Your task to perform on an android device: add a contact Image 0: 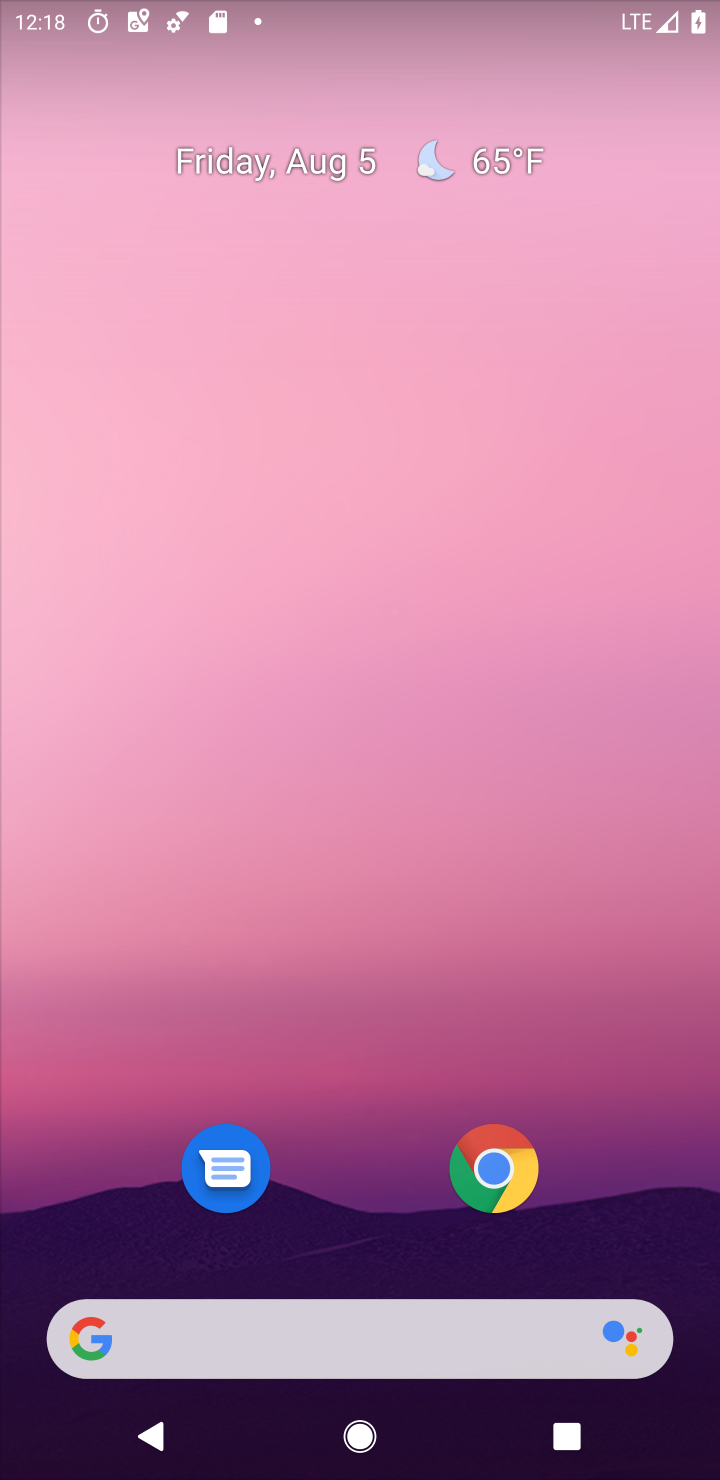
Step 0: drag from (308, 1244) to (337, 41)
Your task to perform on an android device: add a contact Image 1: 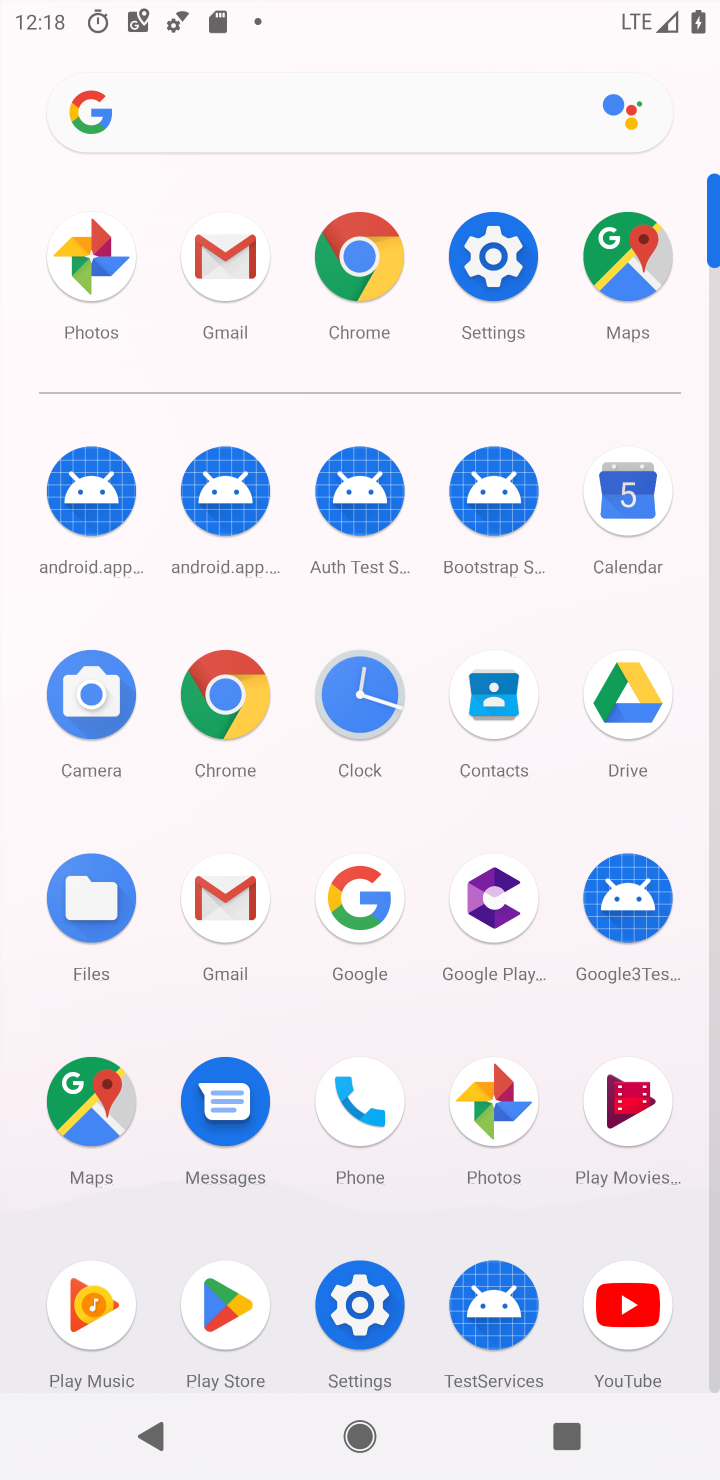
Step 1: click (648, 521)
Your task to perform on an android device: add a contact Image 2: 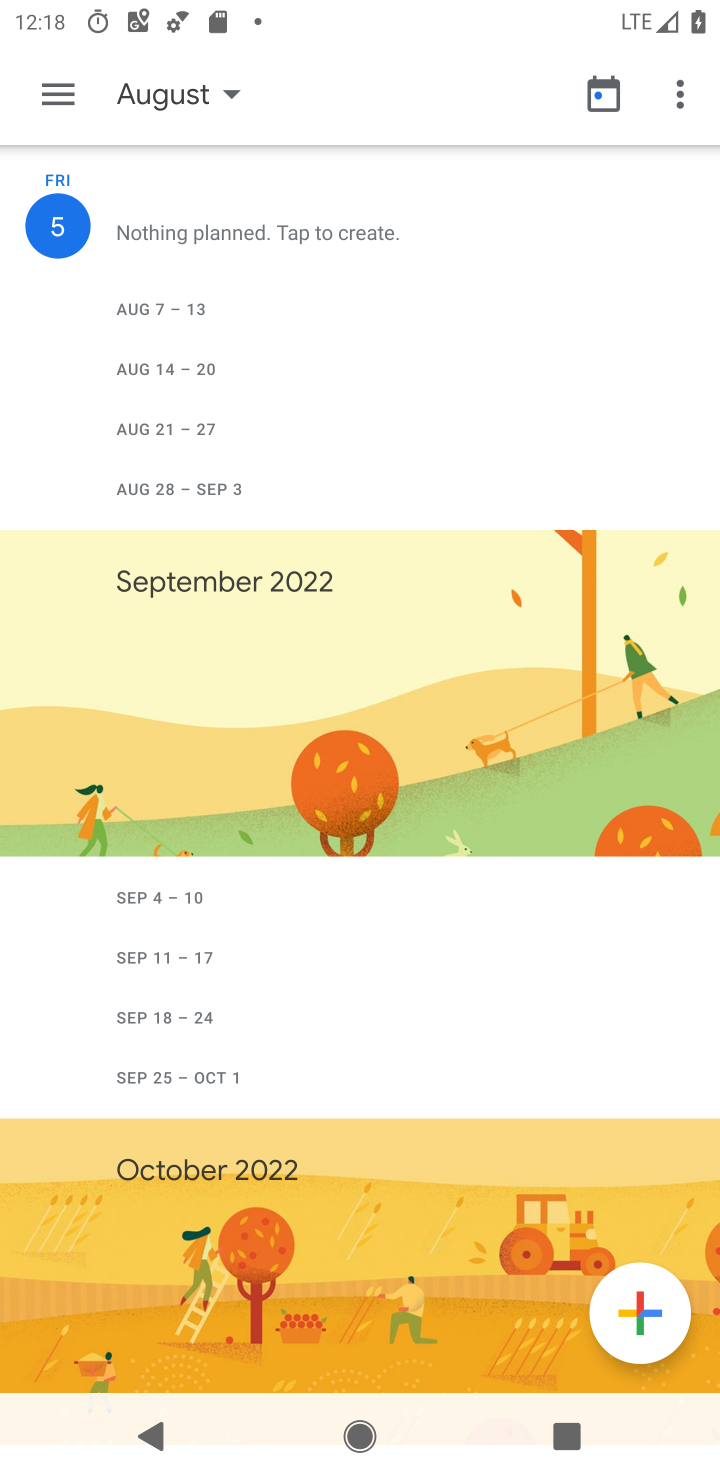
Step 2: press home button
Your task to perform on an android device: add a contact Image 3: 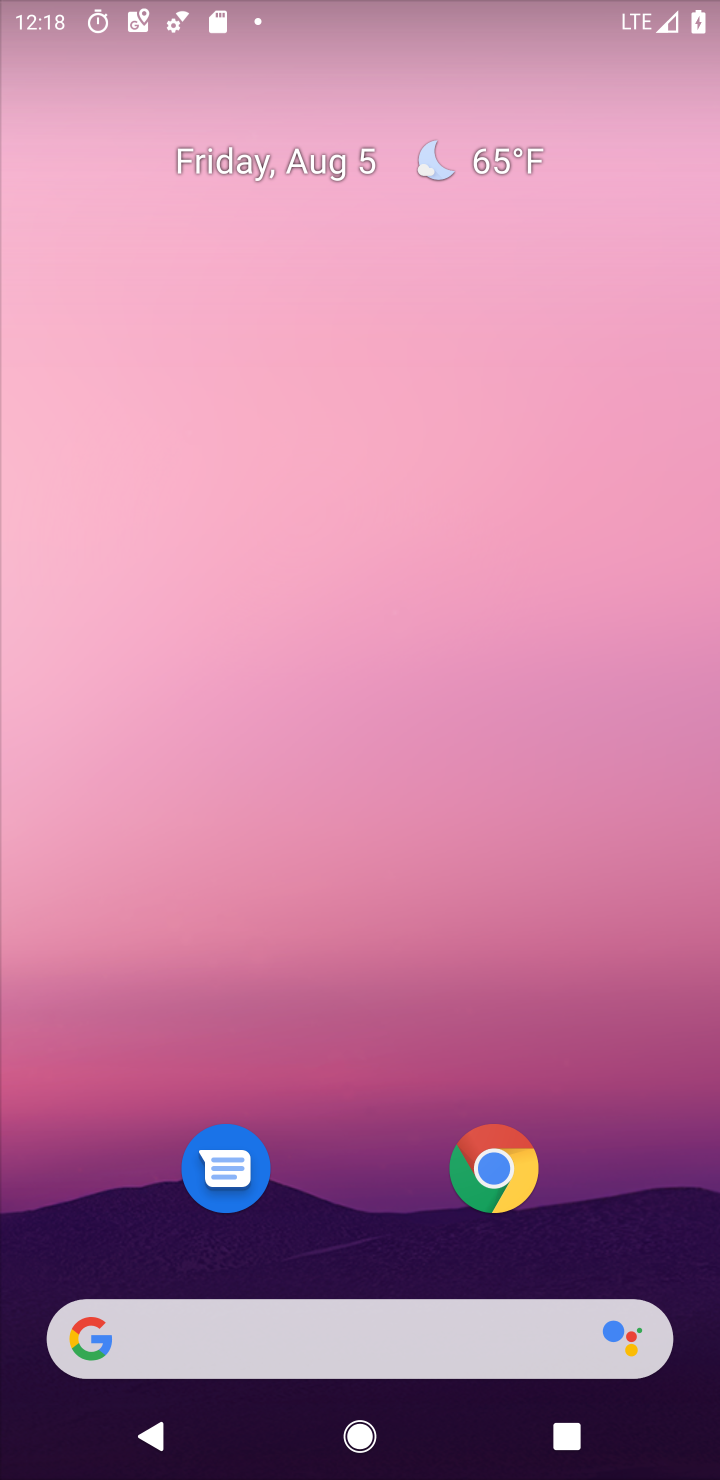
Step 3: drag from (390, 1107) to (463, 83)
Your task to perform on an android device: add a contact Image 4: 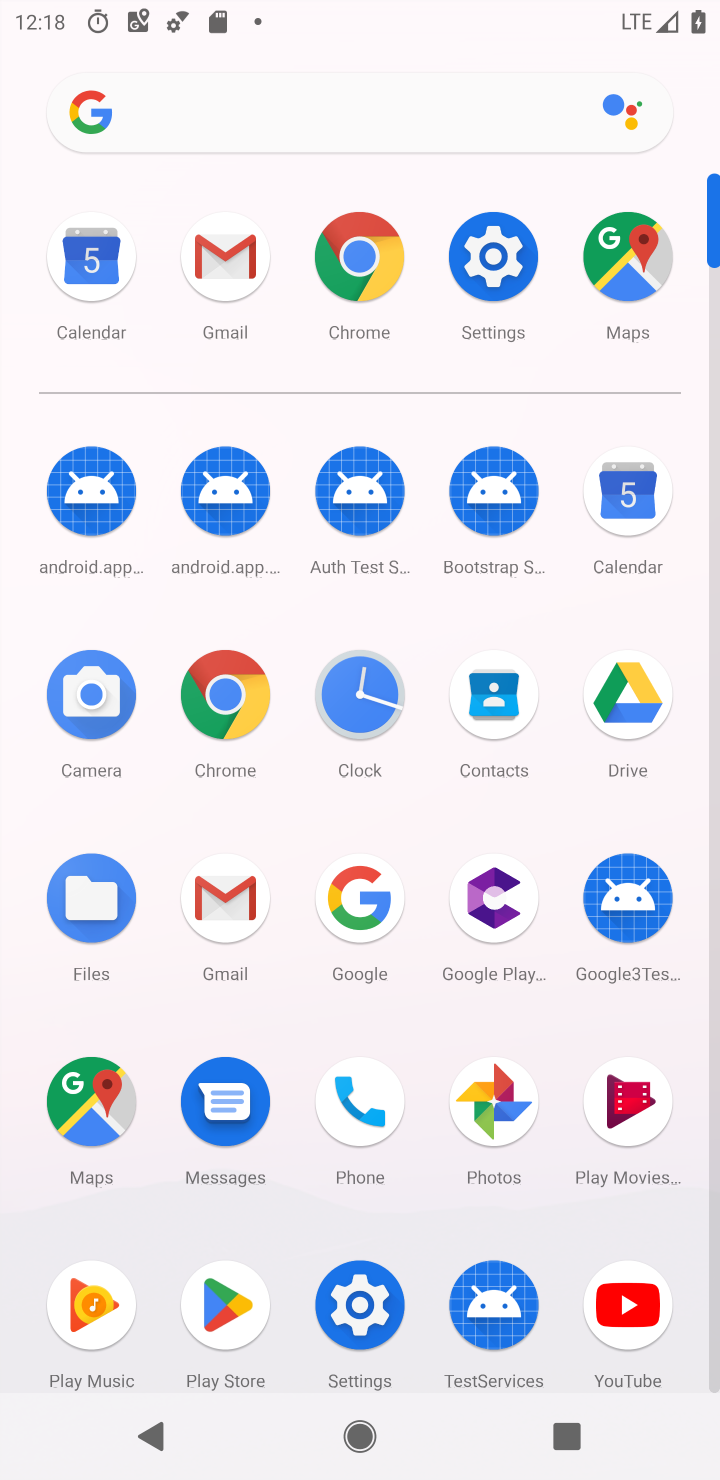
Step 4: click (496, 725)
Your task to perform on an android device: add a contact Image 5: 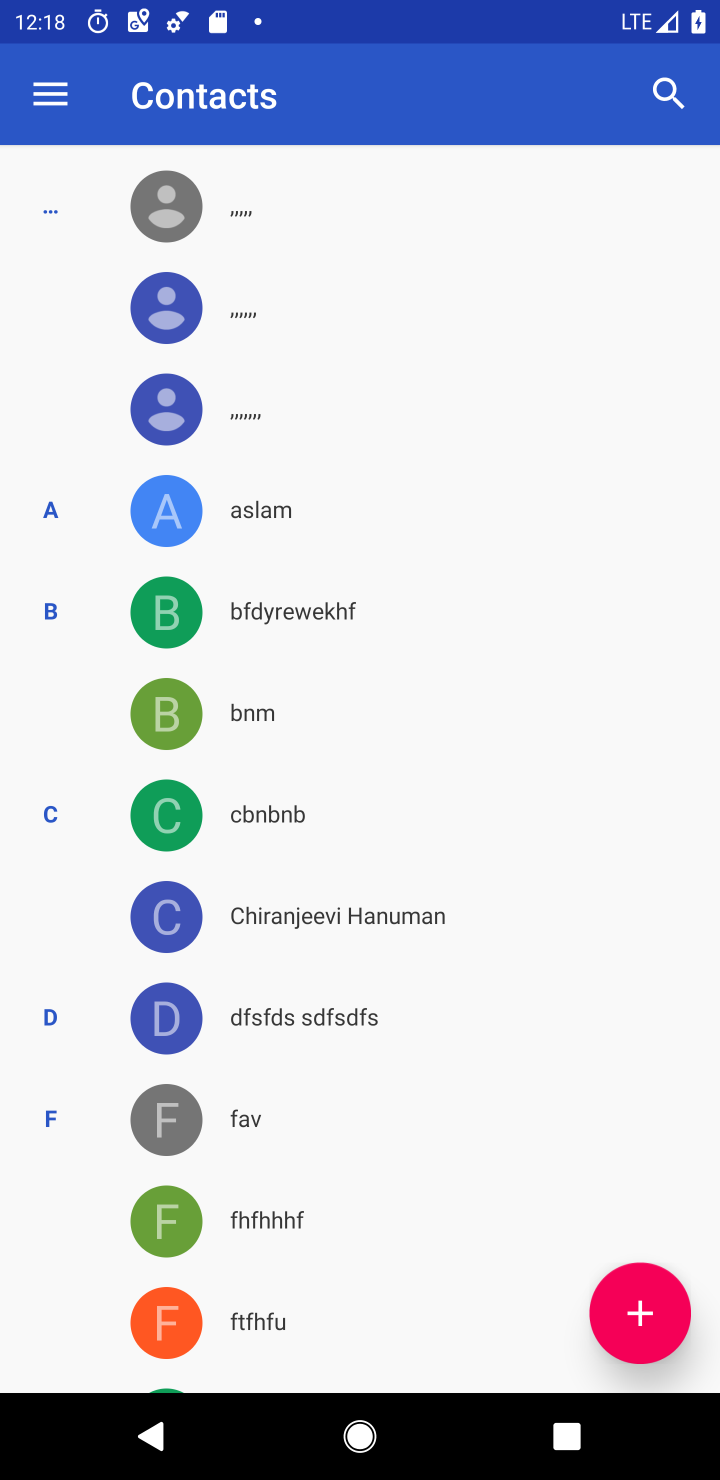
Step 5: click (668, 1323)
Your task to perform on an android device: add a contact Image 6: 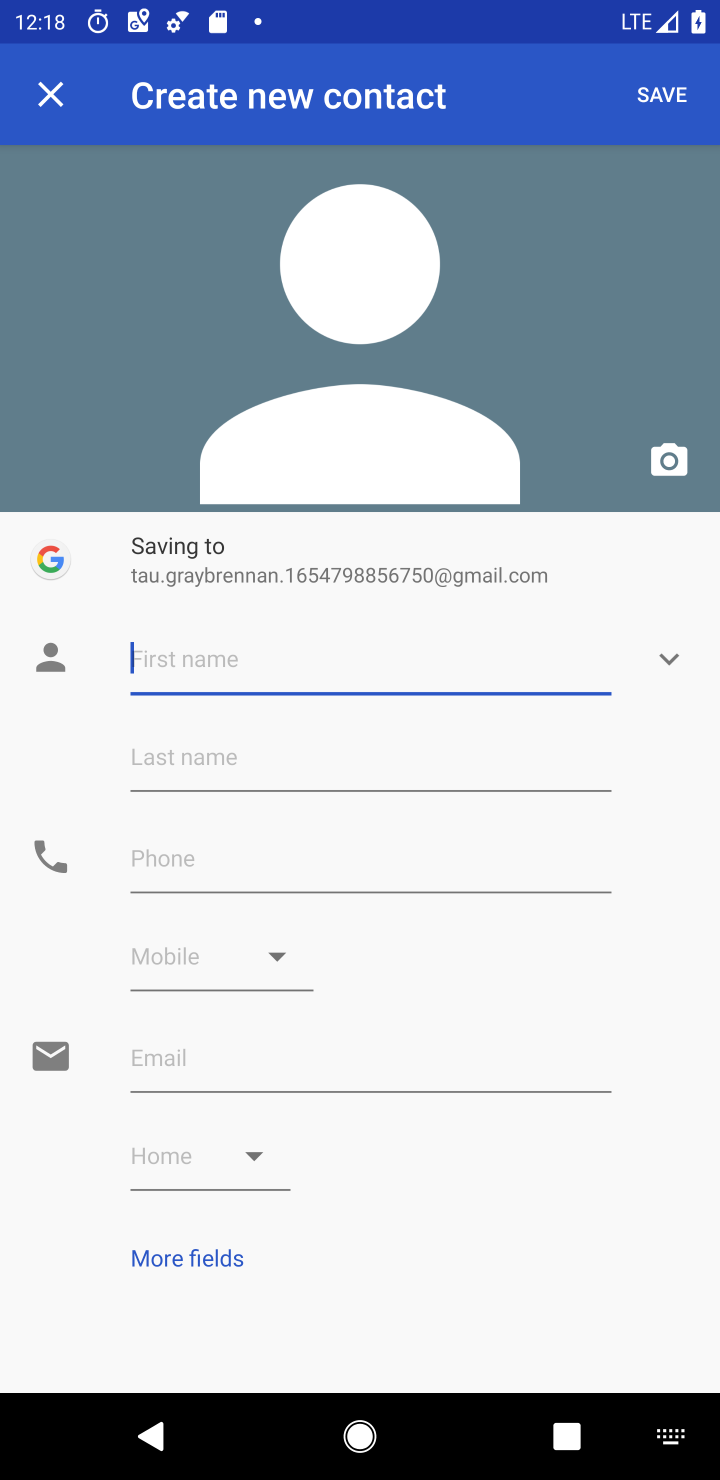
Step 6: type "counti"
Your task to perform on an android device: add a contact Image 7: 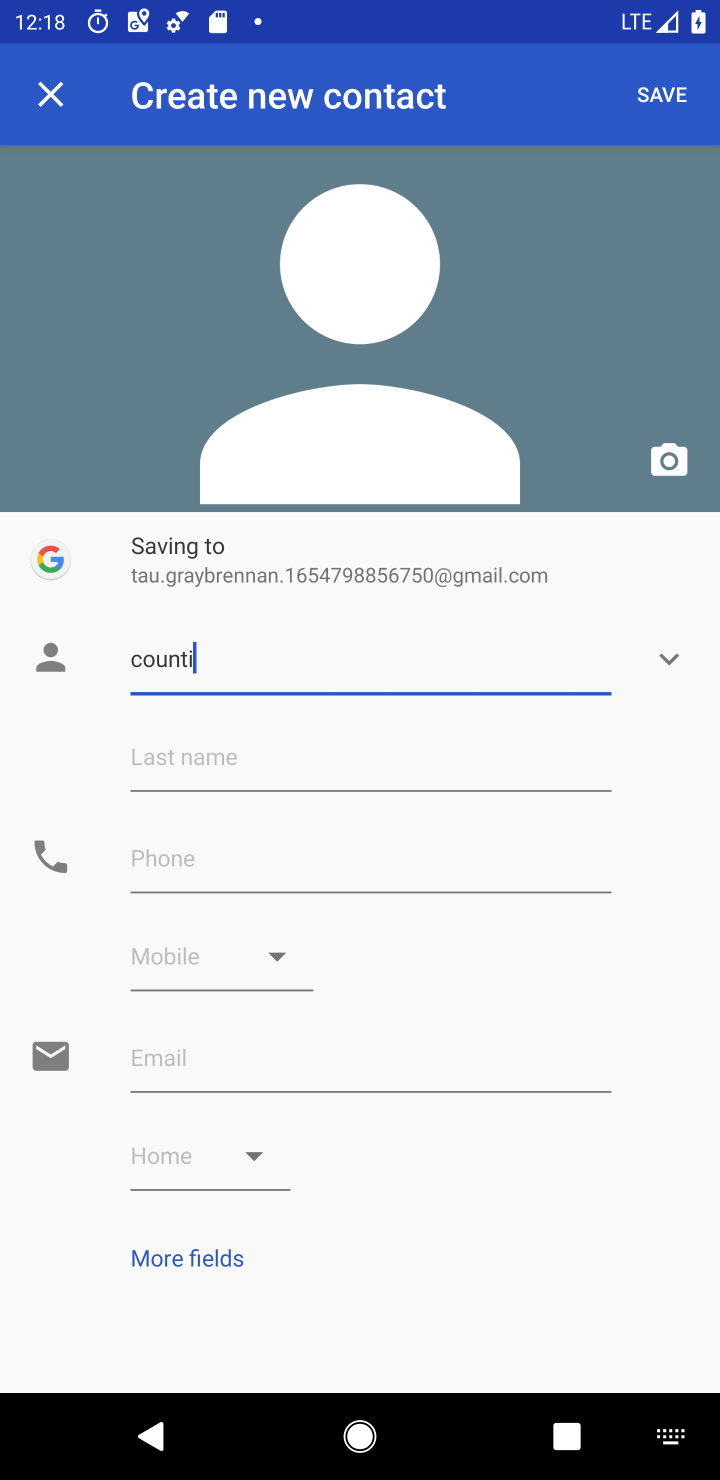
Step 7: click (658, 84)
Your task to perform on an android device: add a contact Image 8: 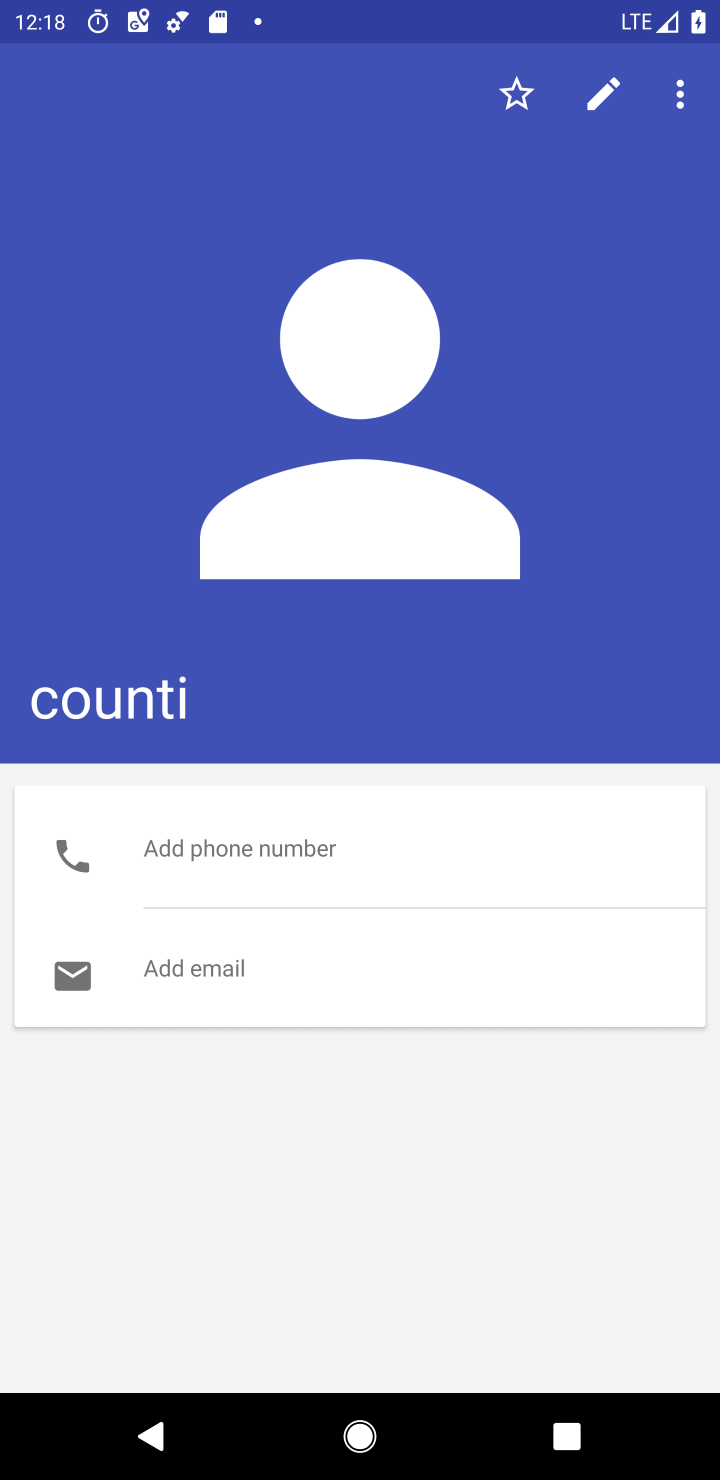
Step 8: task complete